Your task to perform on an android device: change the upload size in google photos Image 0: 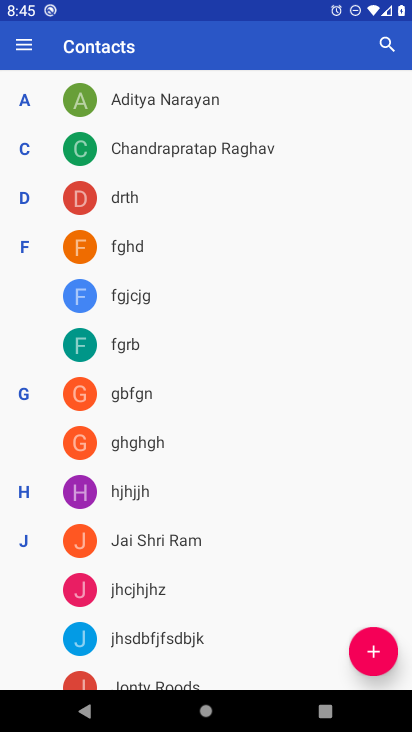
Step 0: press home button
Your task to perform on an android device: change the upload size in google photos Image 1: 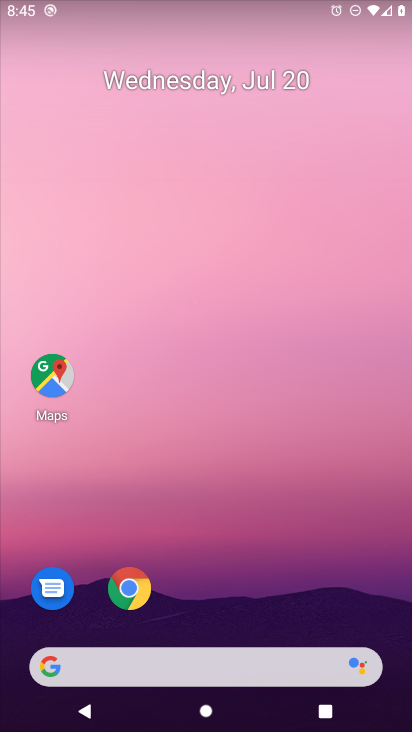
Step 1: drag from (68, 679) to (251, 181)
Your task to perform on an android device: change the upload size in google photos Image 2: 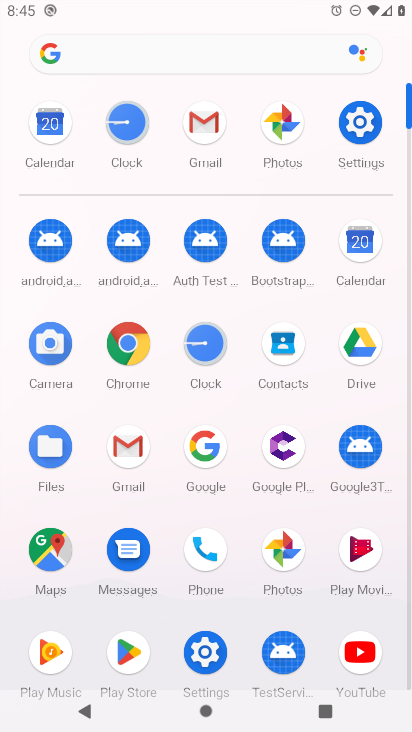
Step 2: click (284, 552)
Your task to perform on an android device: change the upload size in google photos Image 3: 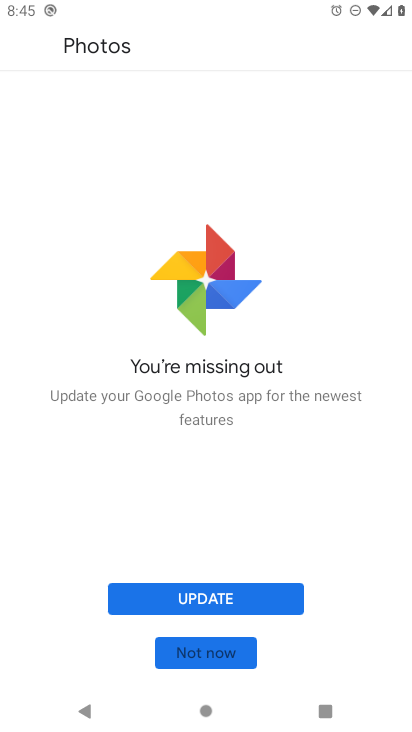
Step 3: click (205, 588)
Your task to perform on an android device: change the upload size in google photos Image 4: 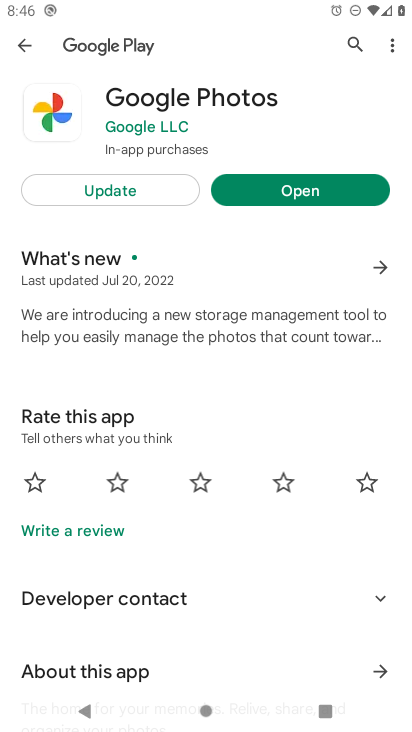
Step 4: click (296, 196)
Your task to perform on an android device: change the upload size in google photos Image 5: 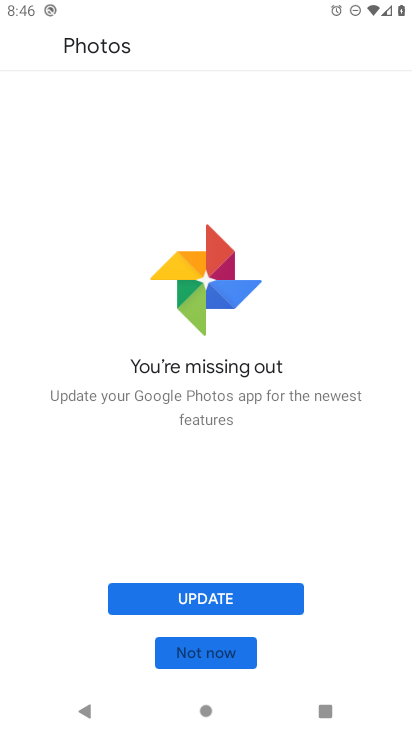
Step 5: click (197, 649)
Your task to perform on an android device: change the upload size in google photos Image 6: 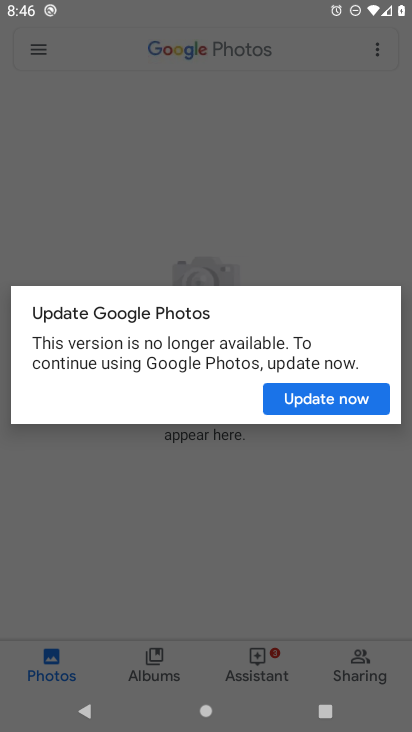
Step 6: click (293, 404)
Your task to perform on an android device: change the upload size in google photos Image 7: 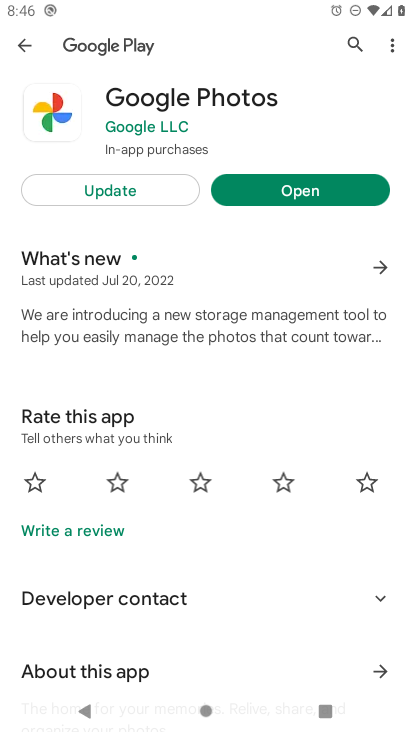
Step 7: task complete